Your task to perform on an android device: find snoozed emails in the gmail app Image 0: 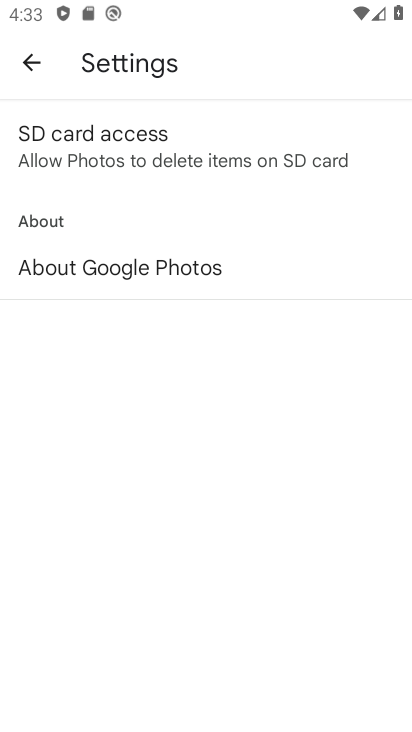
Step 0: press back button
Your task to perform on an android device: find snoozed emails in the gmail app Image 1: 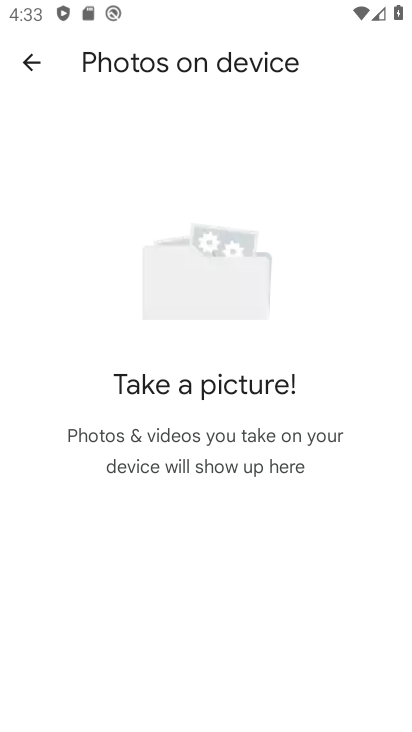
Step 1: press back button
Your task to perform on an android device: find snoozed emails in the gmail app Image 2: 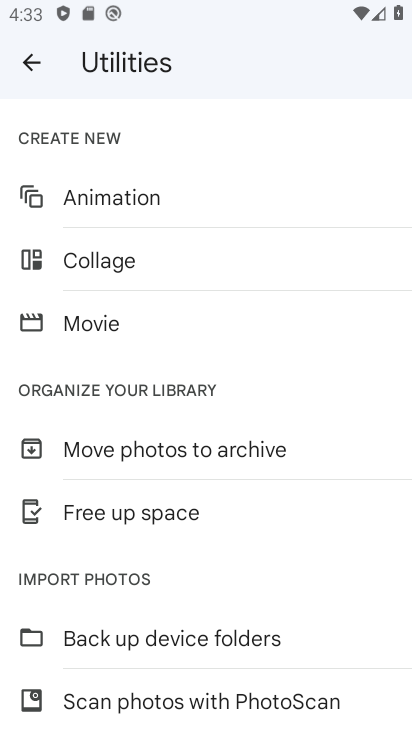
Step 2: press back button
Your task to perform on an android device: find snoozed emails in the gmail app Image 3: 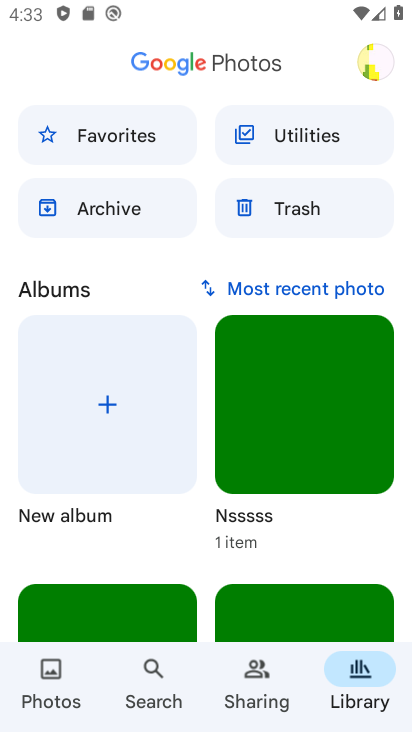
Step 3: press back button
Your task to perform on an android device: find snoozed emails in the gmail app Image 4: 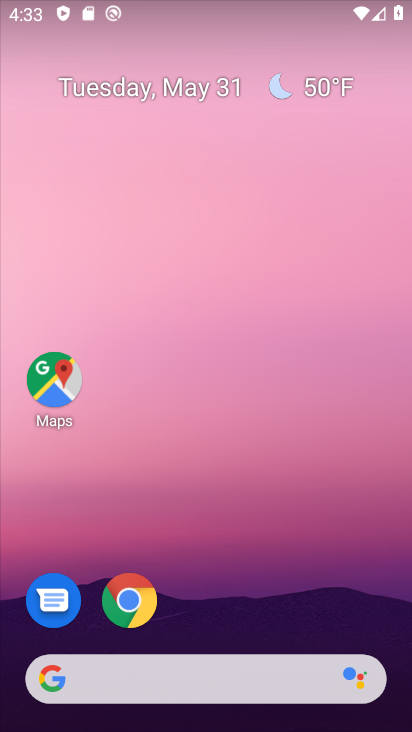
Step 4: drag from (284, 568) to (215, 47)
Your task to perform on an android device: find snoozed emails in the gmail app Image 5: 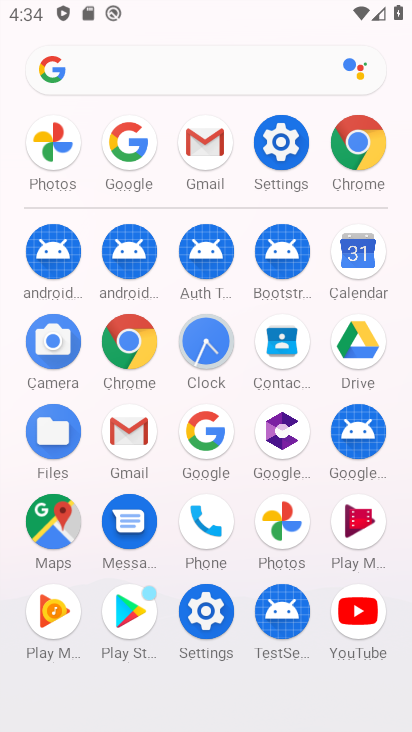
Step 5: click (203, 143)
Your task to perform on an android device: find snoozed emails in the gmail app Image 6: 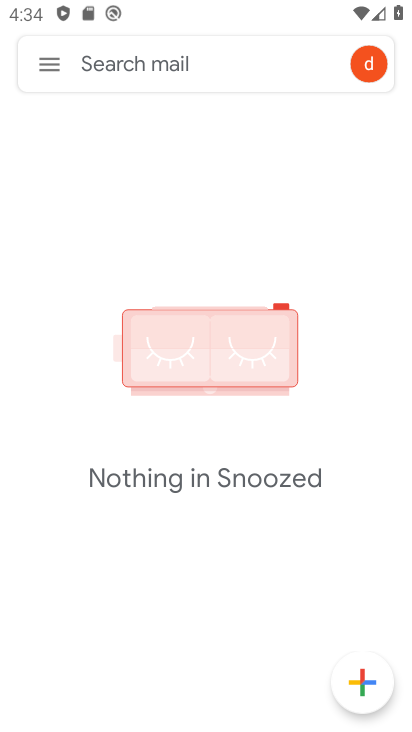
Step 6: click (39, 76)
Your task to perform on an android device: find snoozed emails in the gmail app Image 7: 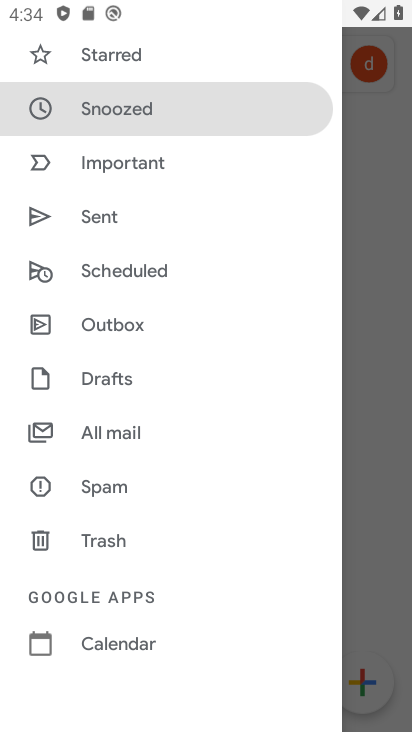
Step 7: drag from (129, 117) to (88, 279)
Your task to perform on an android device: find snoozed emails in the gmail app Image 8: 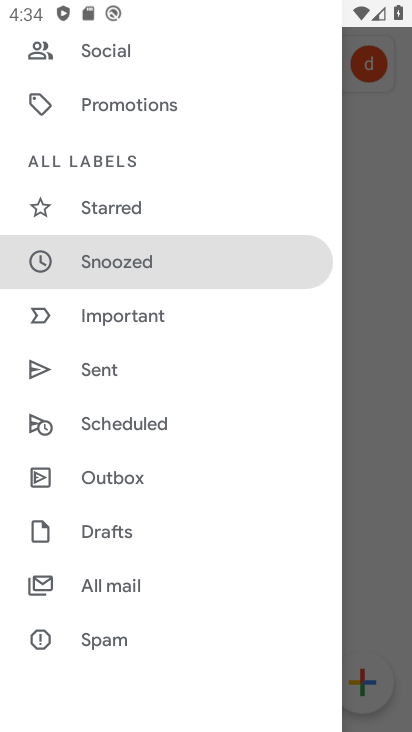
Step 8: click (108, 254)
Your task to perform on an android device: find snoozed emails in the gmail app Image 9: 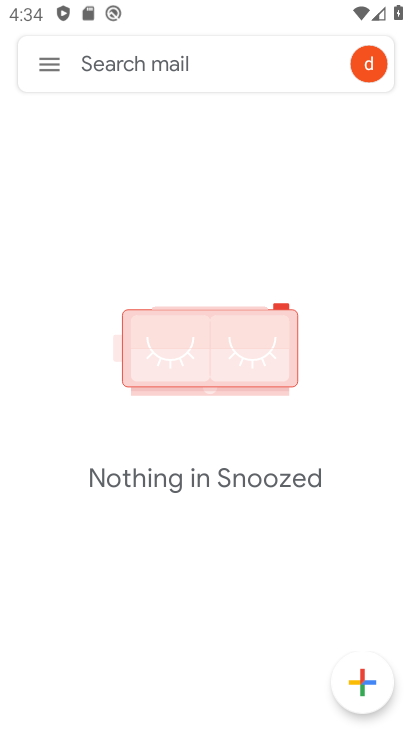
Step 9: task complete